Your task to perform on an android device: turn off airplane mode Image 0: 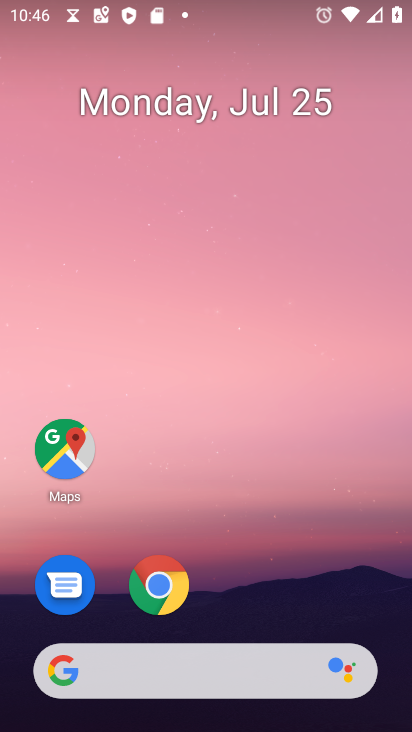
Step 0: drag from (220, 632) to (181, 56)
Your task to perform on an android device: turn off airplane mode Image 1: 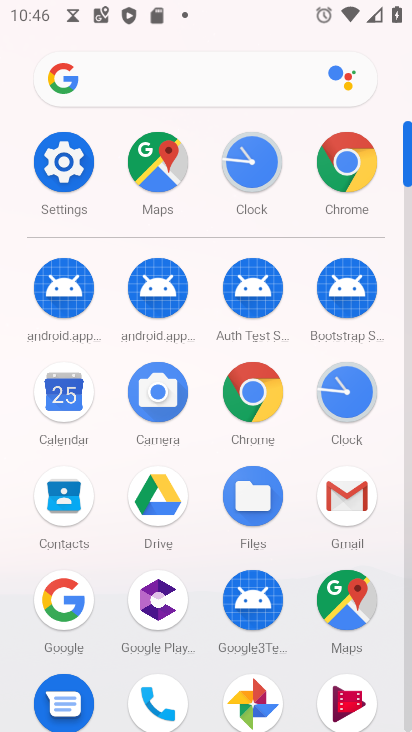
Step 1: click (83, 147)
Your task to perform on an android device: turn off airplane mode Image 2: 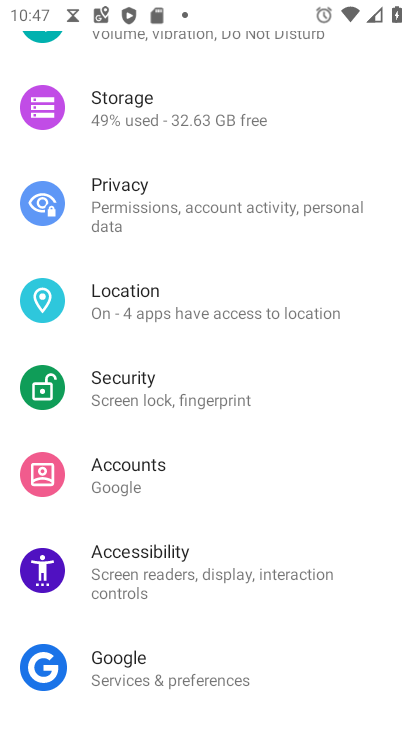
Step 2: drag from (183, 172) to (177, 716)
Your task to perform on an android device: turn off airplane mode Image 3: 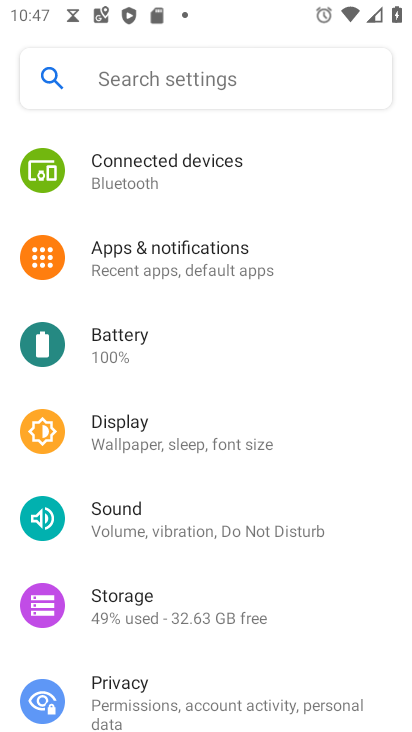
Step 3: drag from (187, 160) to (187, 712)
Your task to perform on an android device: turn off airplane mode Image 4: 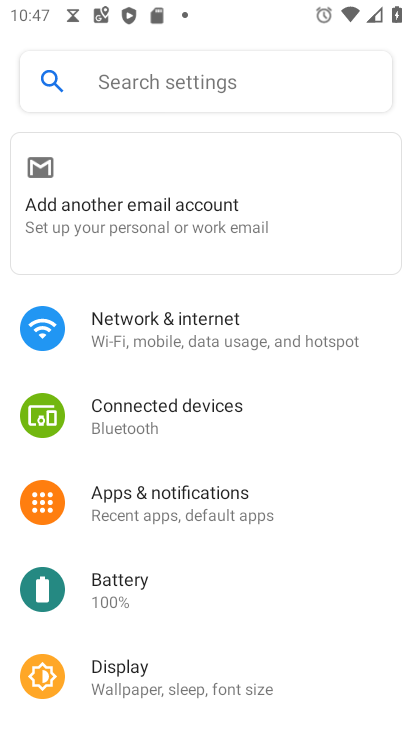
Step 4: click (170, 324)
Your task to perform on an android device: turn off airplane mode Image 5: 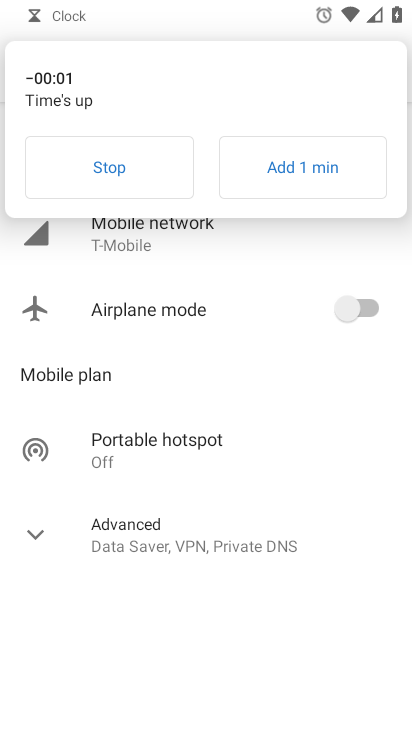
Step 5: task complete